Your task to perform on an android device: Go to eBay Image 0: 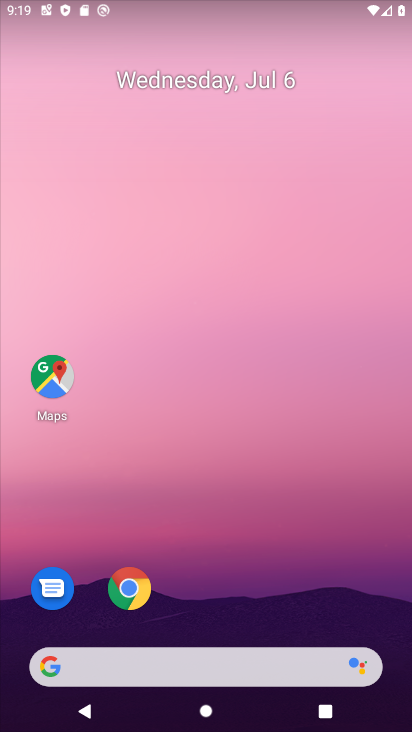
Step 0: click (133, 590)
Your task to perform on an android device: Go to eBay Image 1: 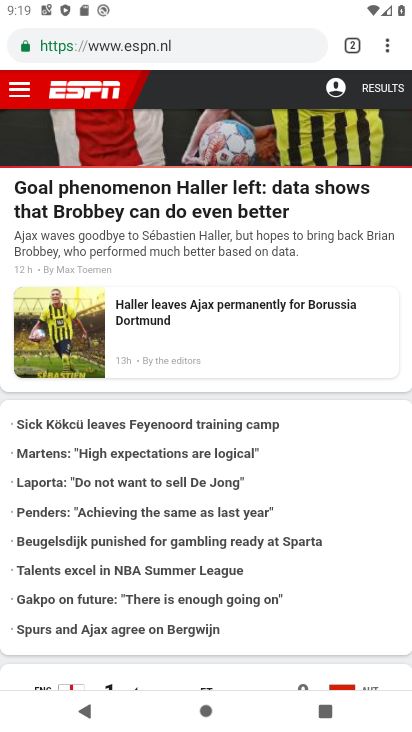
Step 1: click (380, 55)
Your task to perform on an android device: Go to eBay Image 2: 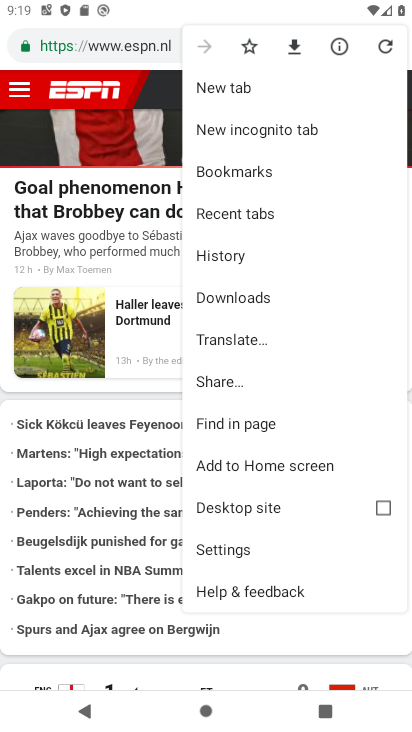
Step 2: click (219, 90)
Your task to perform on an android device: Go to eBay Image 3: 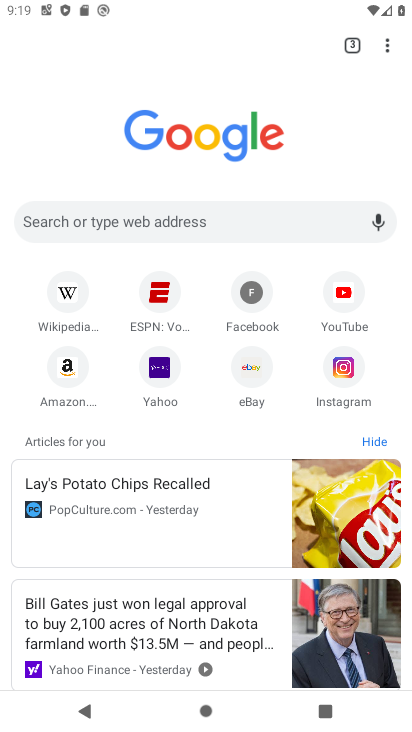
Step 3: click (252, 373)
Your task to perform on an android device: Go to eBay Image 4: 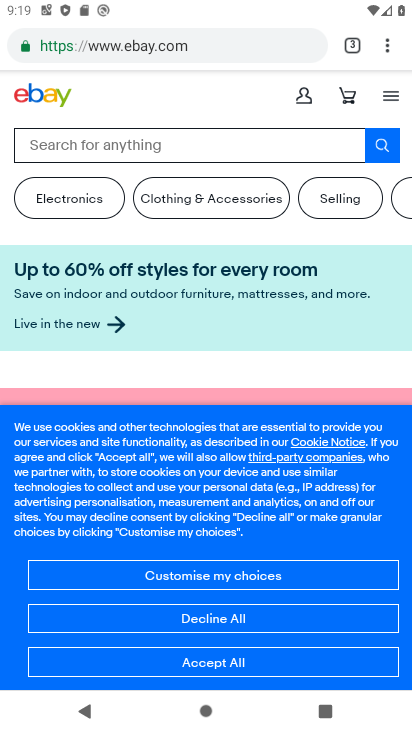
Step 4: click (238, 658)
Your task to perform on an android device: Go to eBay Image 5: 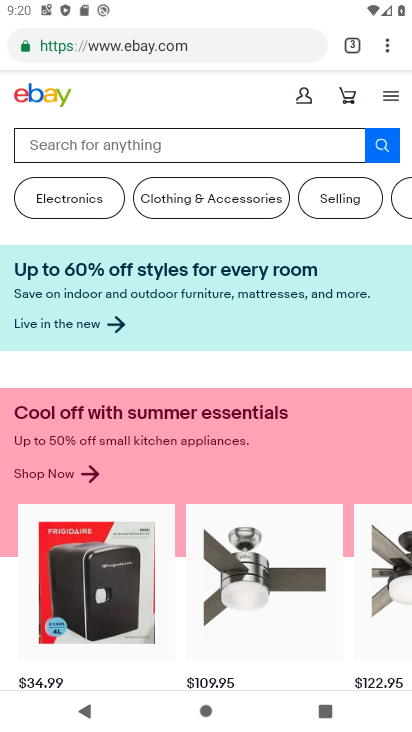
Step 5: task complete